Your task to perform on an android device: toggle pop-ups in chrome Image 0: 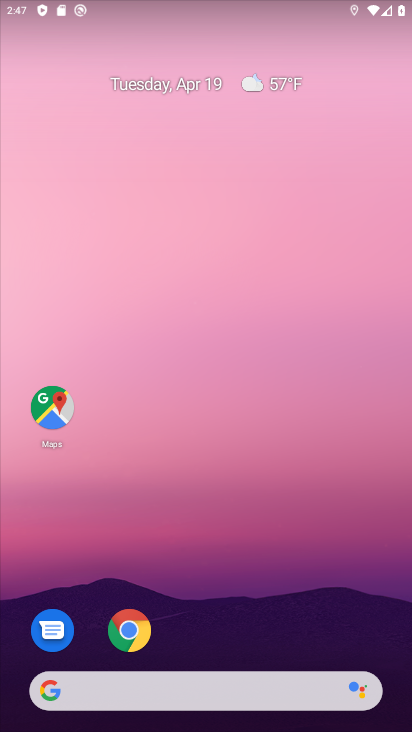
Step 0: click (130, 618)
Your task to perform on an android device: toggle pop-ups in chrome Image 1: 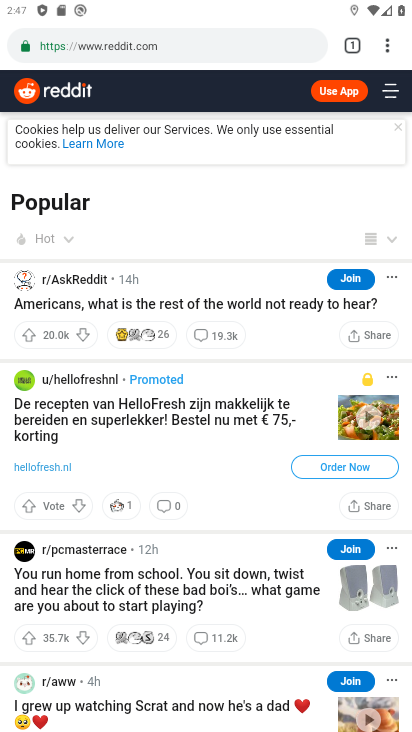
Step 1: click (384, 39)
Your task to perform on an android device: toggle pop-ups in chrome Image 2: 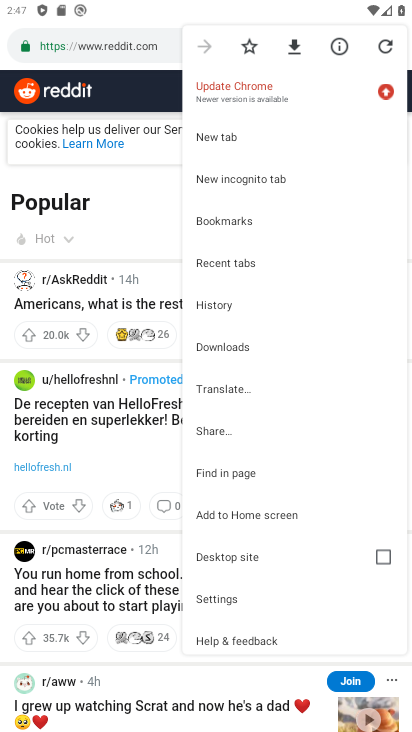
Step 2: click (238, 593)
Your task to perform on an android device: toggle pop-ups in chrome Image 3: 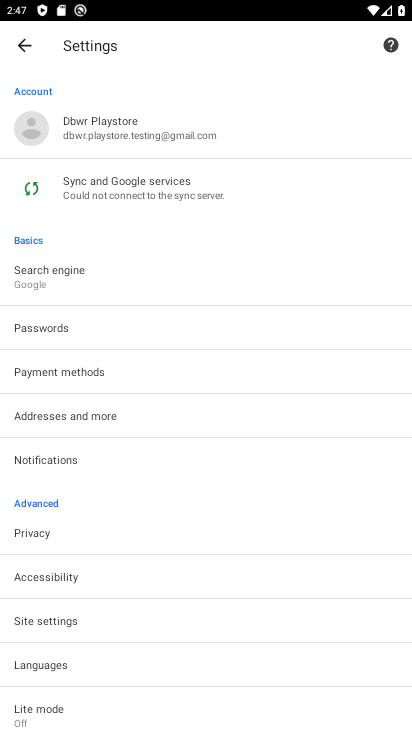
Step 3: click (58, 621)
Your task to perform on an android device: toggle pop-ups in chrome Image 4: 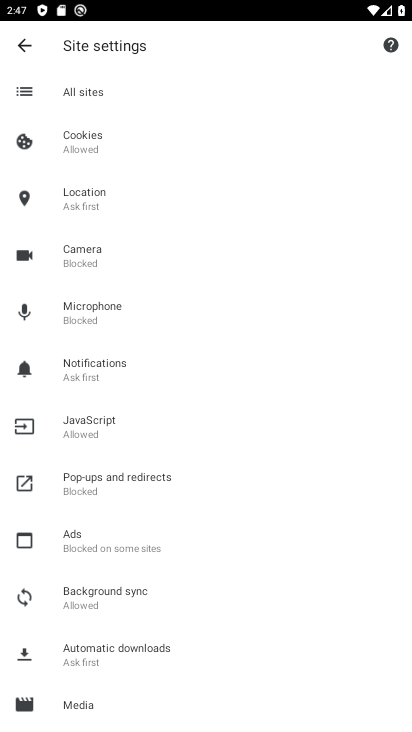
Step 4: click (138, 477)
Your task to perform on an android device: toggle pop-ups in chrome Image 5: 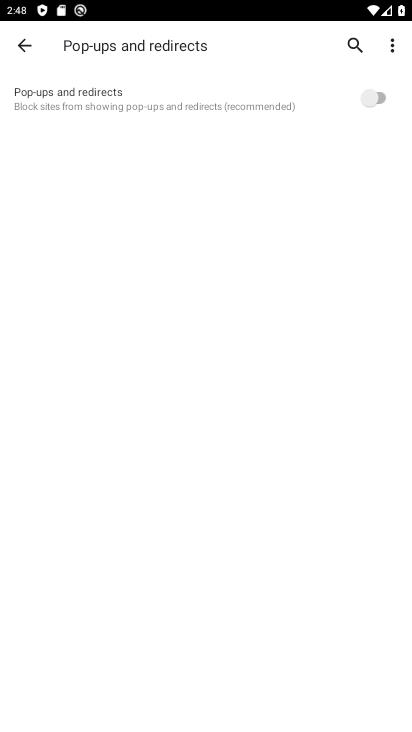
Step 5: click (379, 103)
Your task to perform on an android device: toggle pop-ups in chrome Image 6: 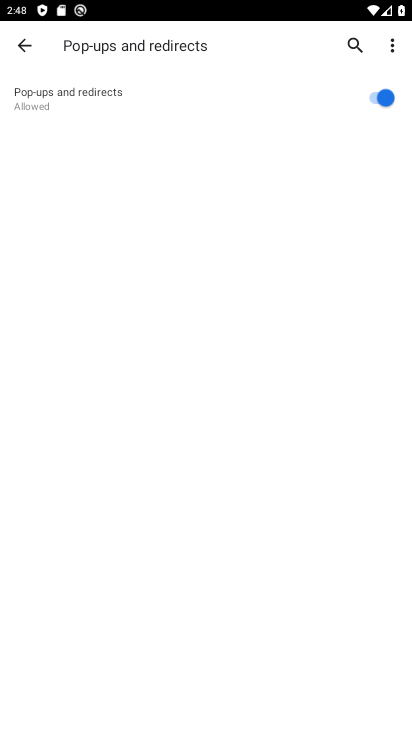
Step 6: task complete